Your task to perform on an android device: Open location settings Image 0: 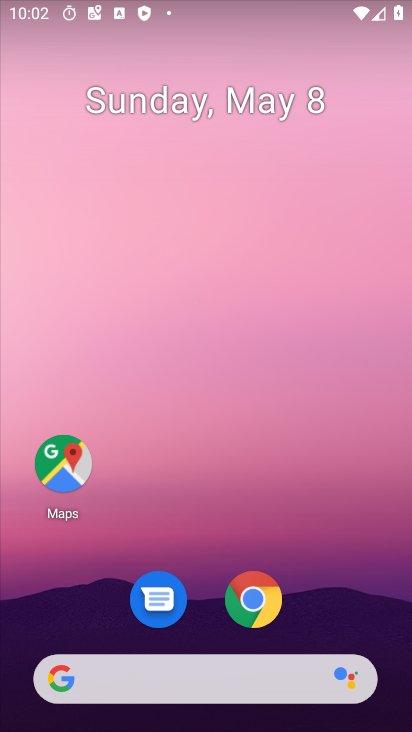
Step 0: drag from (234, 561) to (335, 88)
Your task to perform on an android device: Open location settings Image 1: 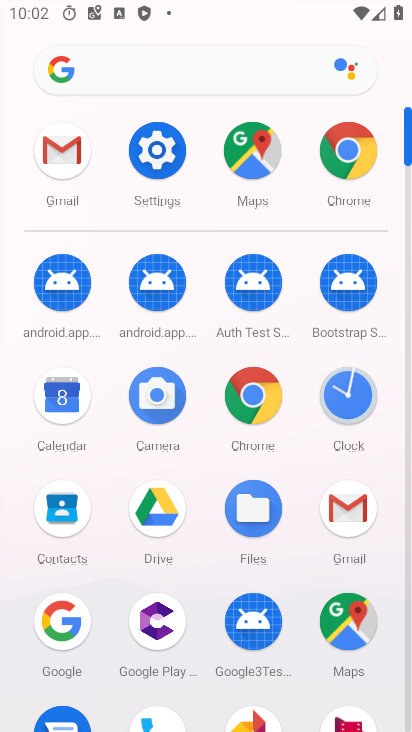
Step 1: click (170, 163)
Your task to perform on an android device: Open location settings Image 2: 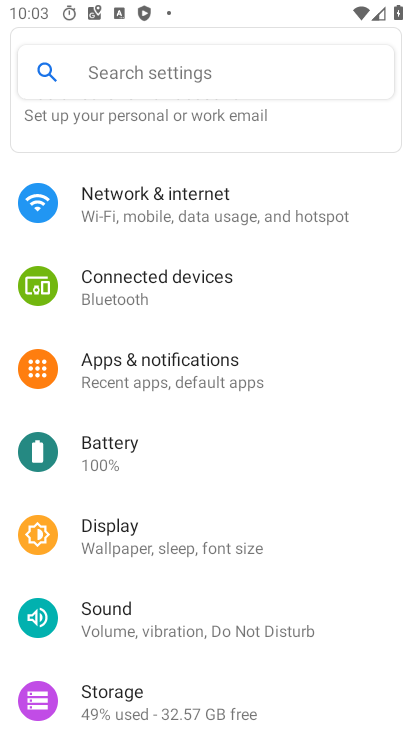
Step 2: drag from (150, 542) to (288, 171)
Your task to perform on an android device: Open location settings Image 3: 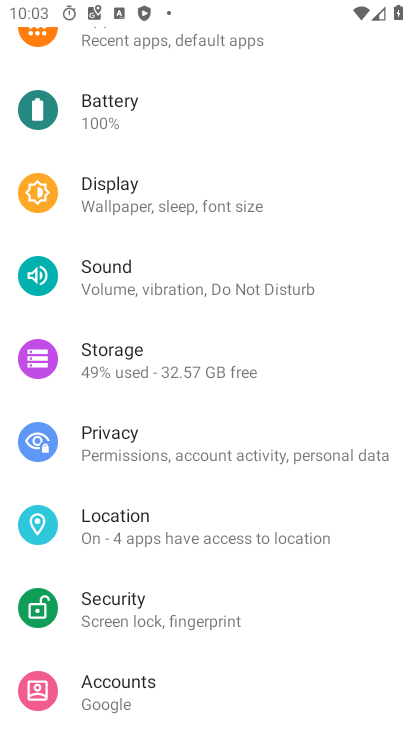
Step 3: click (164, 520)
Your task to perform on an android device: Open location settings Image 4: 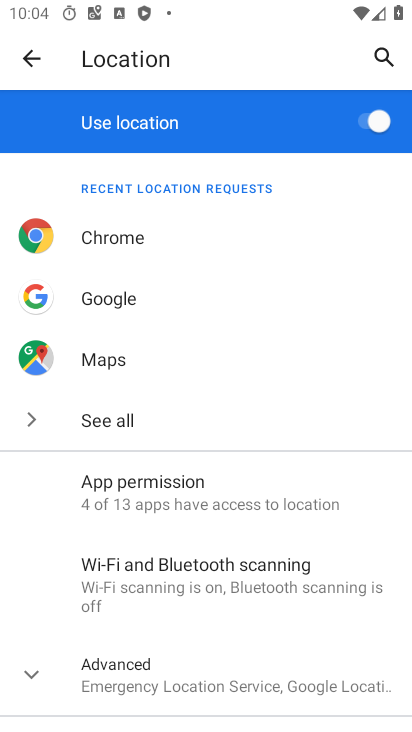
Step 4: task complete